Your task to perform on an android device: clear history in the chrome app Image 0: 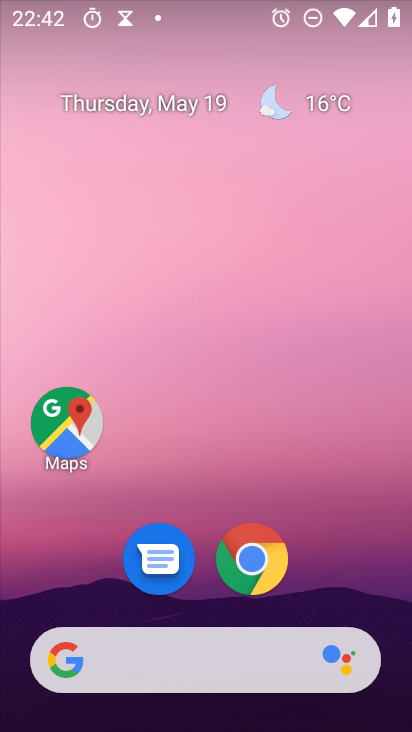
Step 0: click (262, 555)
Your task to perform on an android device: clear history in the chrome app Image 1: 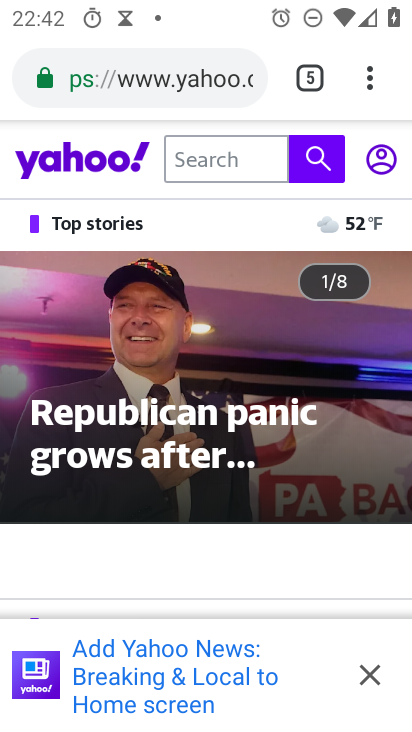
Step 1: click (370, 82)
Your task to perform on an android device: clear history in the chrome app Image 2: 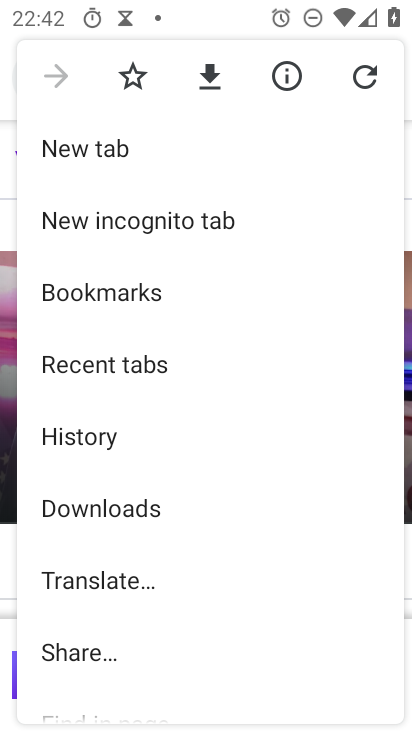
Step 2: drag from (131, 668) to (130, 490)
Your task to perform on an android device: clear history in the chrome app Image 3: 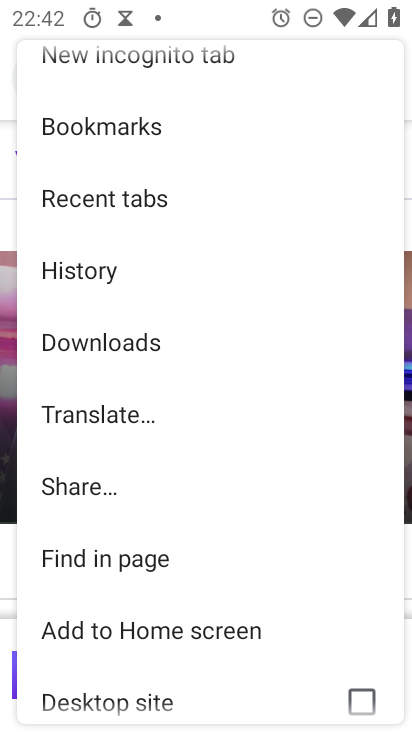
Step 3: click (81, 266)
Your task to perform on an android device: clear history in the chrome app Image 4: 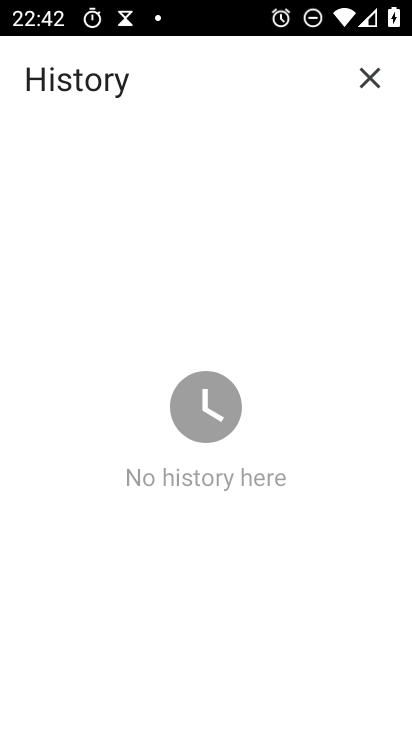
Step 4: task complete